Your task to perform on an android device: See recent photos Image 0: 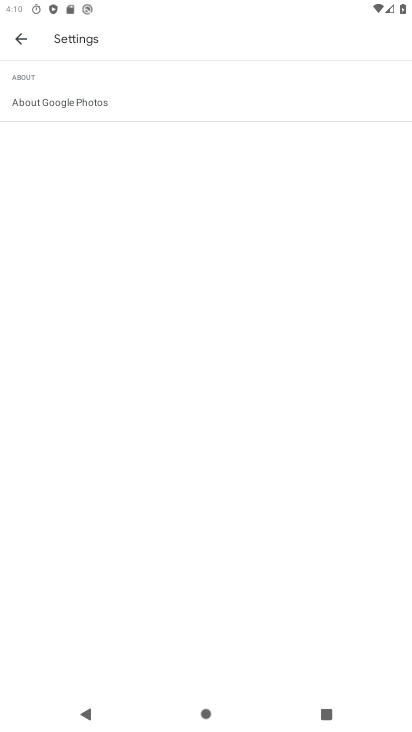
Step 0: press home button
Your task to perform on an android device: See recent photos Image 1: 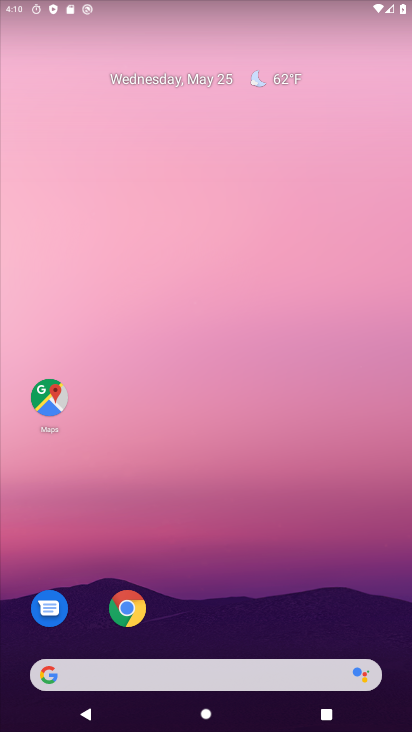
Step 1: drag from (238, 576) to (175, 145)
Your task to perform on an android device: See recent photos Image 2: 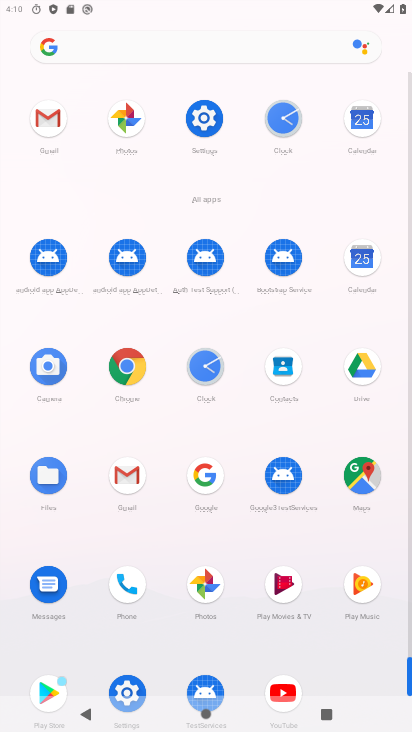
Step 2: click (124, 117)
Your task to perform on an android device: See recent photos Image 3: 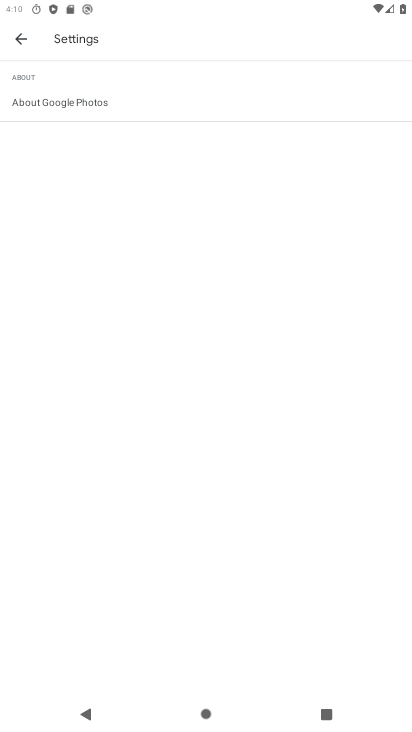
Step 3: click (22, 42)
Your task to perform on an android device: See recent photos Image 4: 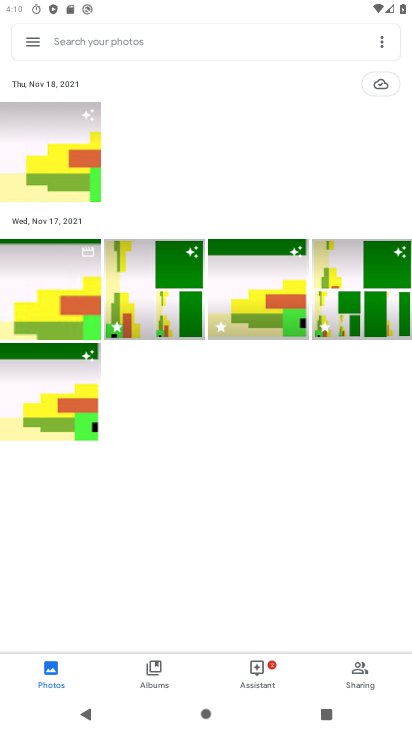
Step 4: task complete